Your task to perform on an android device: Open Chrome and go to the settings page Image 0: 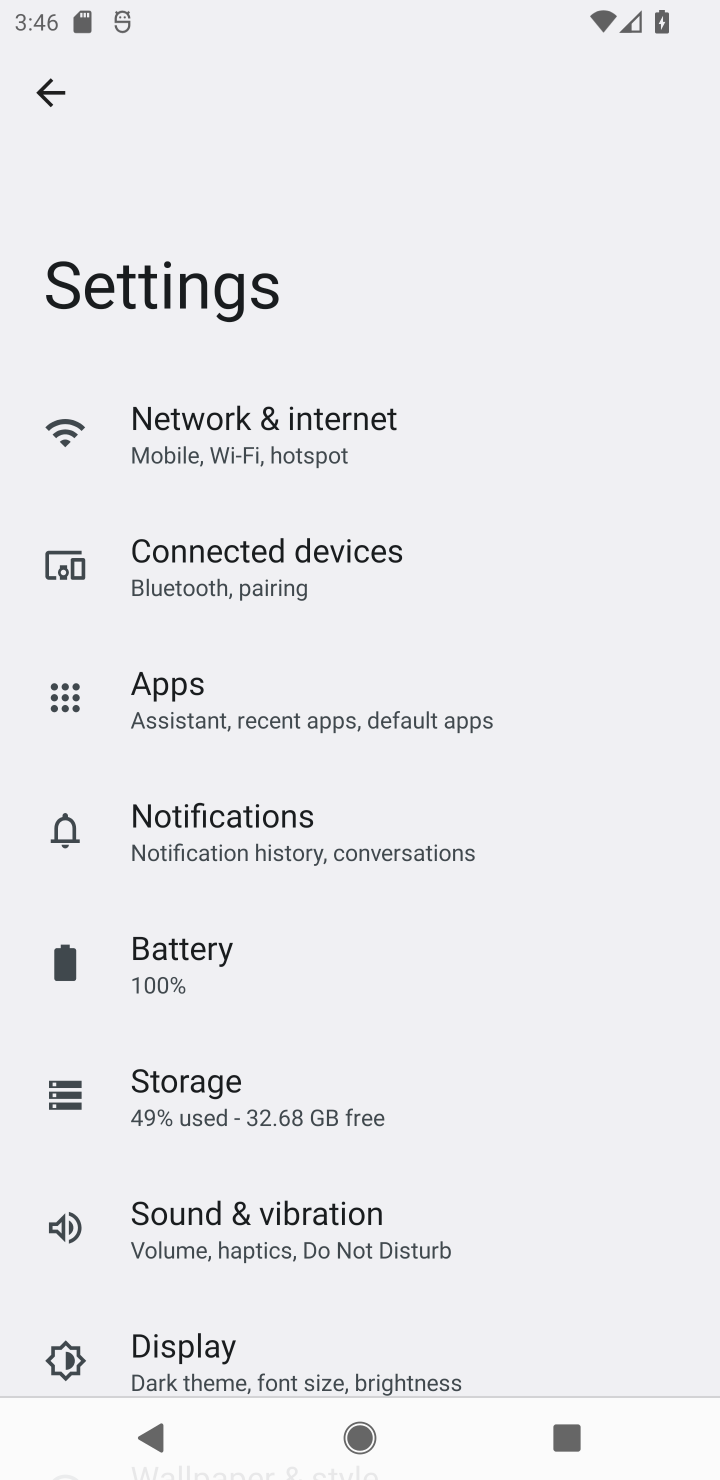
Step 0: press home button
Your task to perform on an android device: Open Chrome and go to the settings page Image 1: 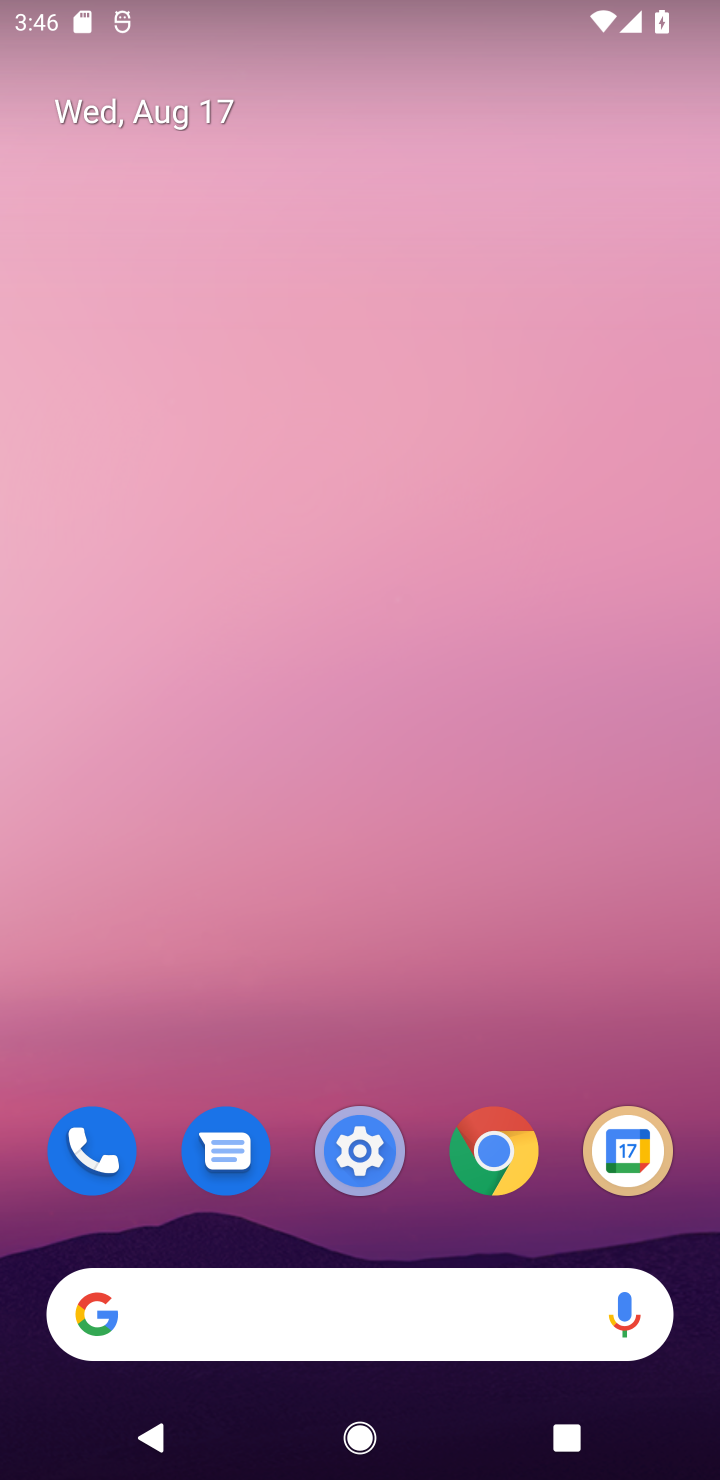
Step 1: click (487, 1178)
Your task to perform on an android device: Open Chrome and go to the settings page Image 2: 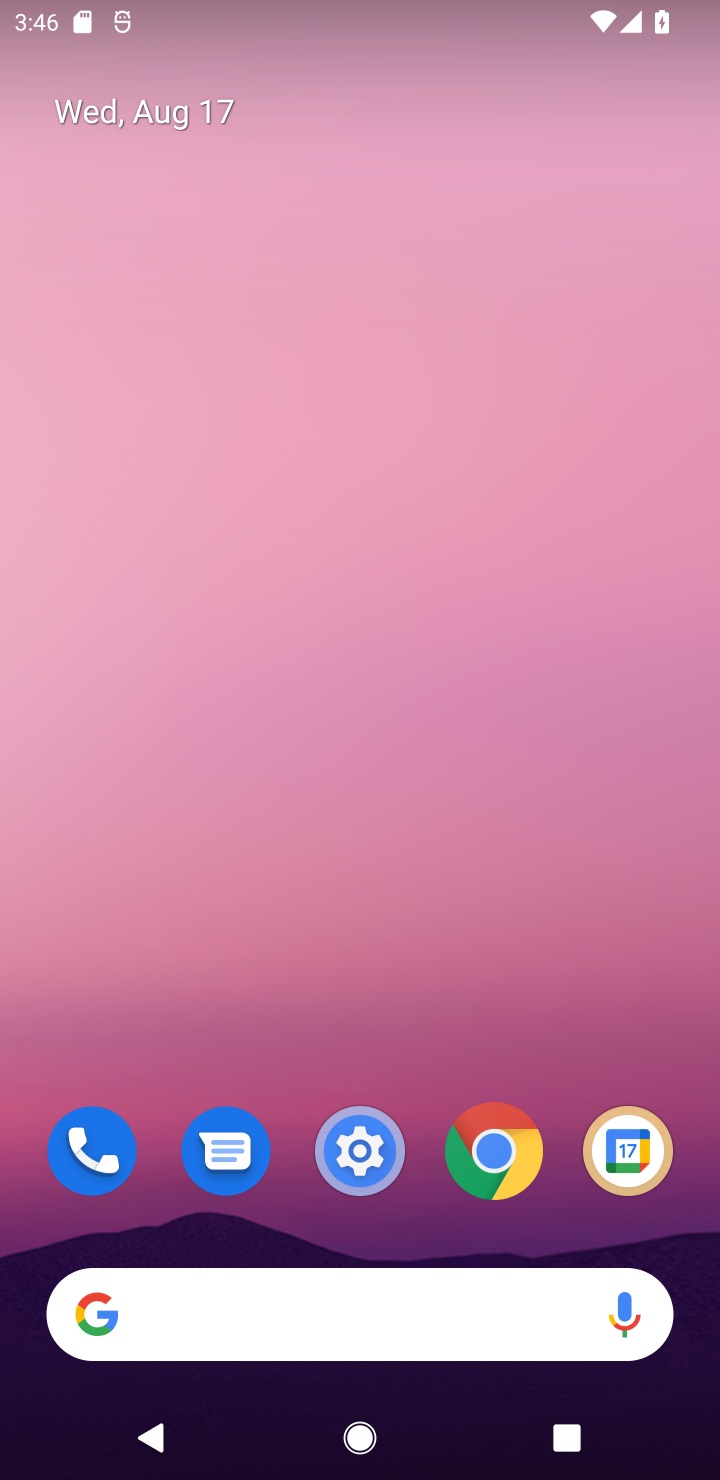
Step 2: click (487, 1178)
Your task to perform on an android device: Open Chrome and go to the settings page Image 3: 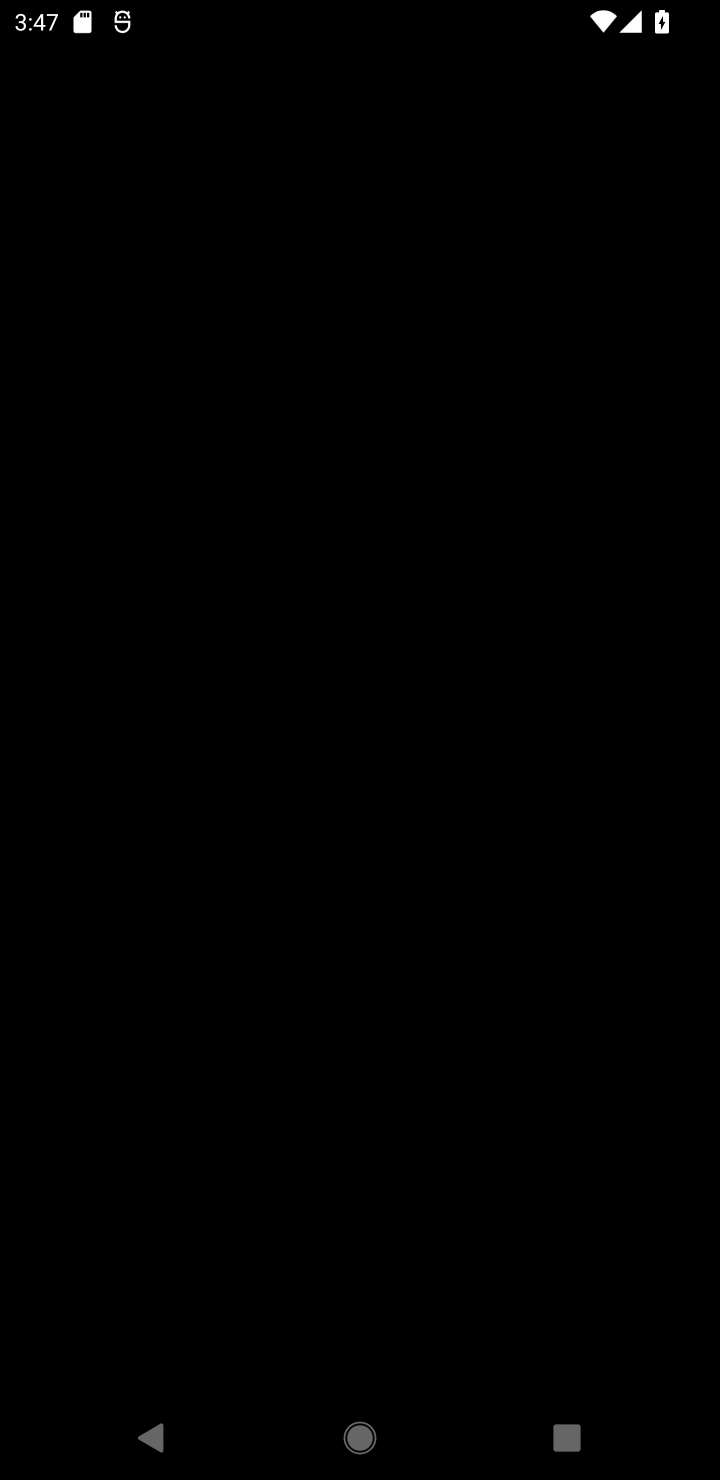
Step 3: task complete